Your task to perform on an android device: Go to Android settings Image 0: 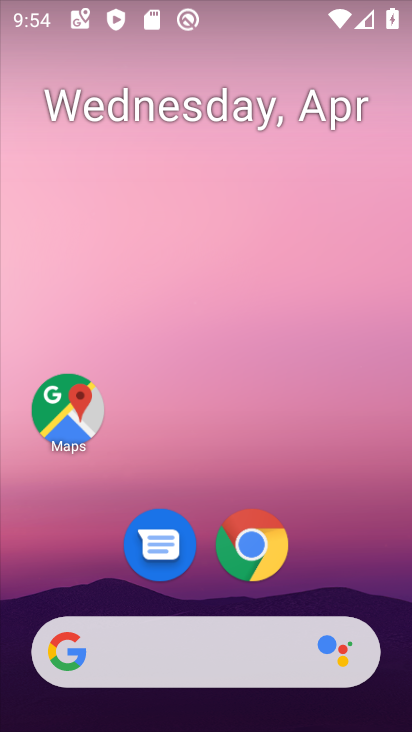
Step 0: drag from (356, 469) to (360, 12)
Your task to perform on an android device: Go to Android settings Image 1: 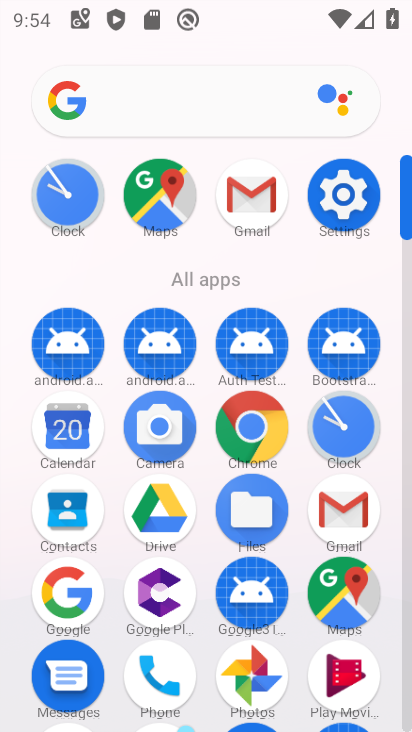
Step 1: click (342, 203)
Your task to perform on an android device: Go to Android settings Image 2: 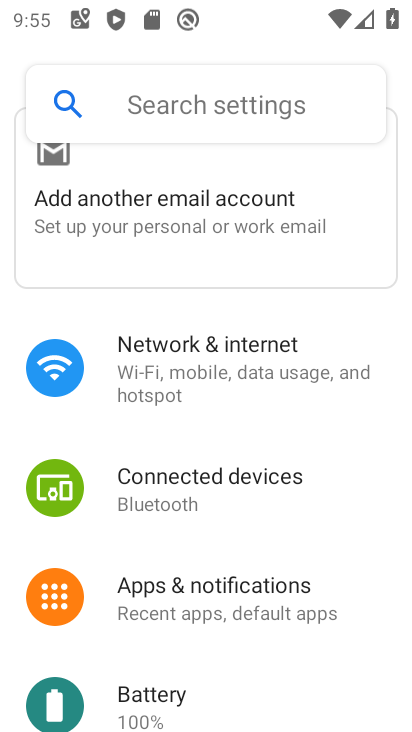
Step 2: task complete